Your task to perform on an android device: turn on the 12-hour format for clock Image 0: 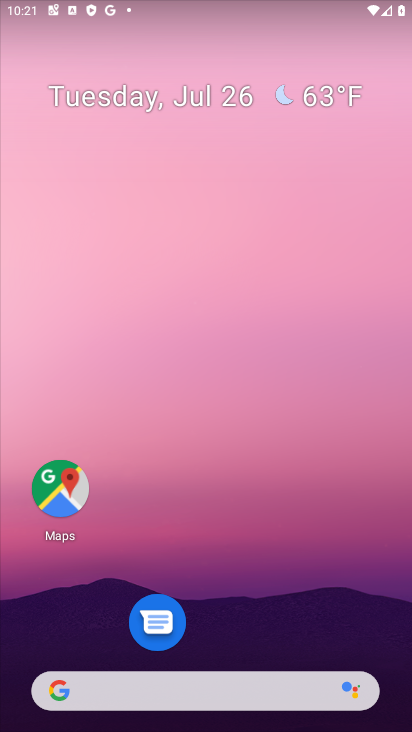
Step 0: drag from (284, 613) to (188, 119)
Your task to perform on an android device: turn on the 12-hour format for clock Image 1: 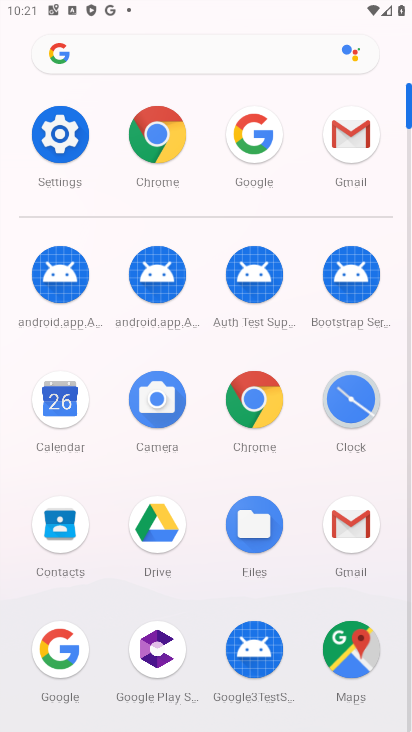
Step 1: click (366, 398)
Your task to perform on an android device: turn on the 12-hour format for clock Image 2: 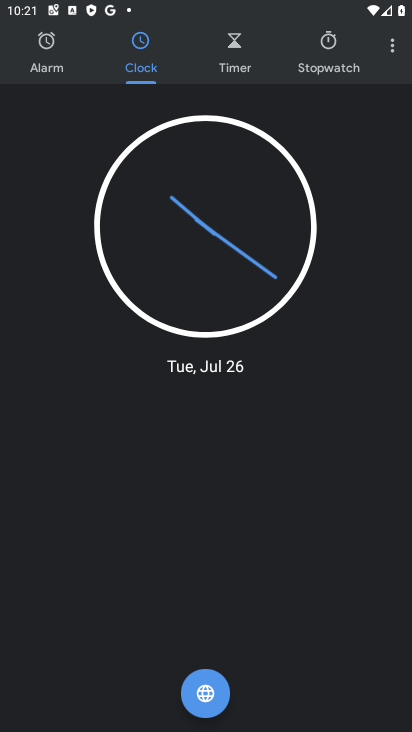
Step 2: click (390, 56)
Your task to perform on an android device: turn on the 12-hour format for clock Image 3: 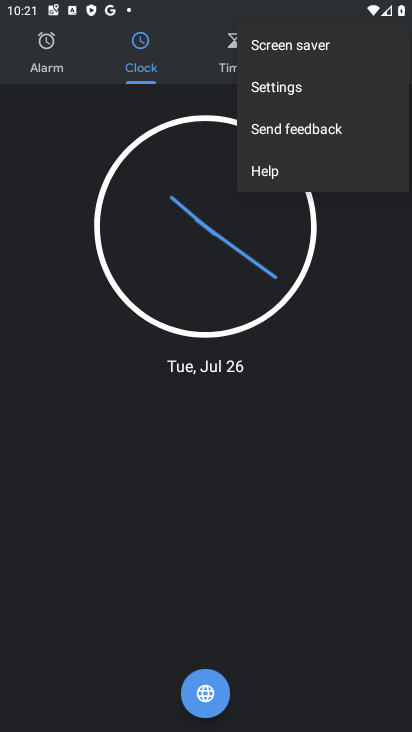
Step 3: click (273, 86)
Your task to perform on an android device: turn on the 12-hour format for clock Image 4: 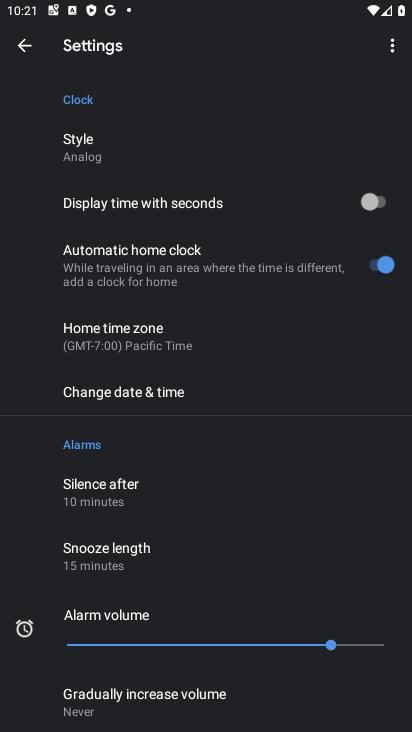
Step 4: click (150, 394)
Your task to perform on an android device: turn on the 12-hour format for clock Image 5: 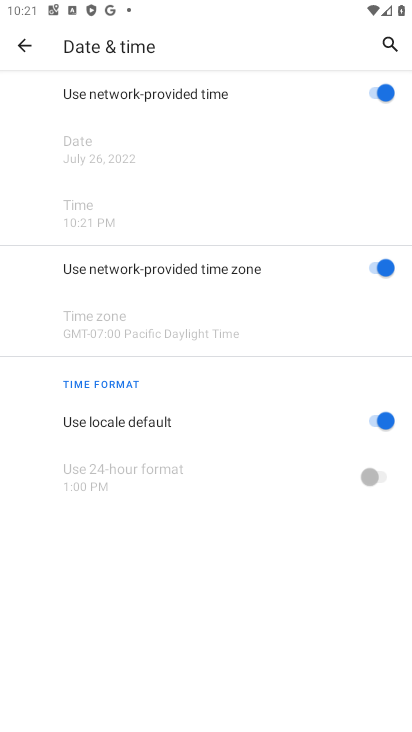
Step 5: task complete